Your task to perform on an android device: Open Chrome and go to the settings page Image 0: 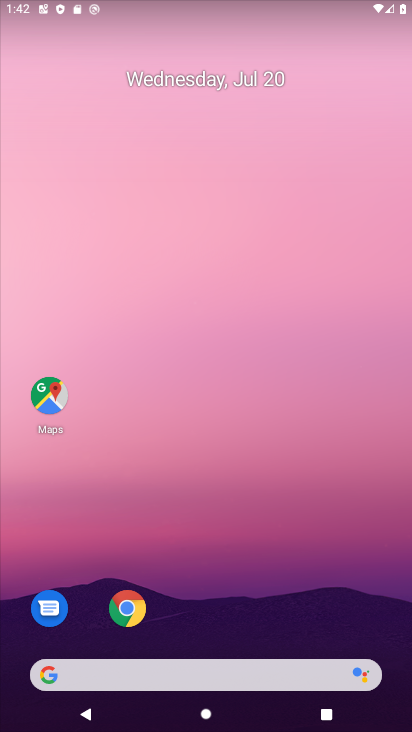
Step 0: task complete